Your task to perform on an android device: move an email to a new category in the gmail app Image 0: 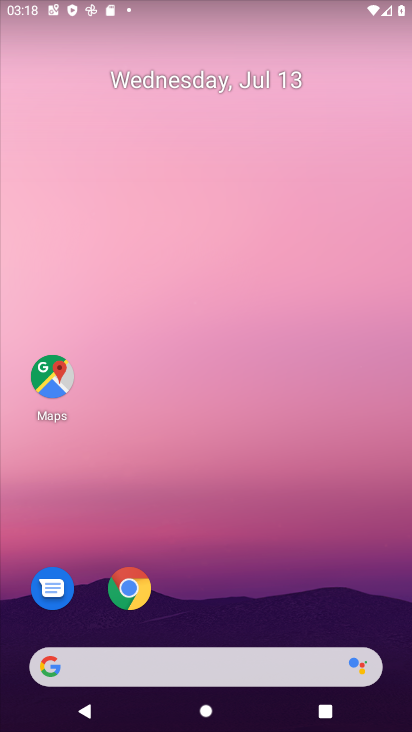
Step 0: drag from (405, 679) to (331, 133)
Your task to perform on an android device: move an email to a new category in the gmail app Image 1: 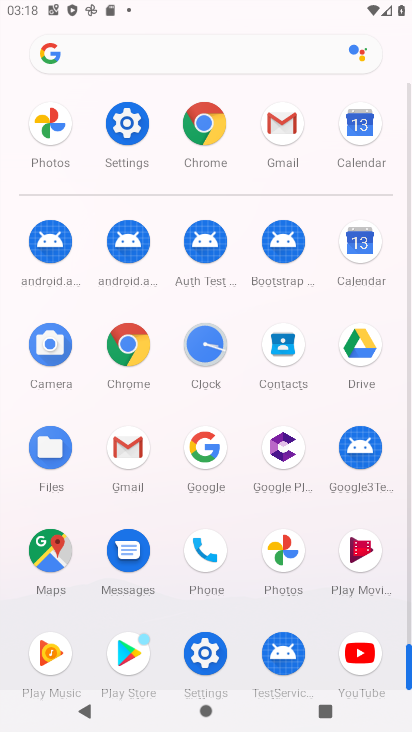
Step 1: click (130, 448)
Your task to perform on an android device: move an email to a new category in the gmail app Image 2: 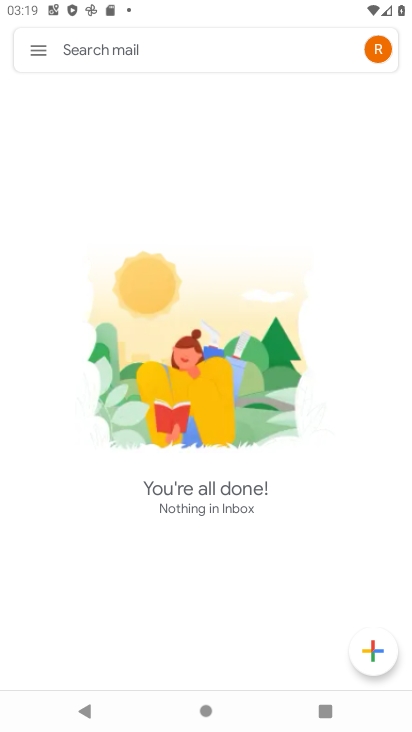
Step 2: task complete